Your task to perform on an android device: turn on data saver in the chrome app Image 0: 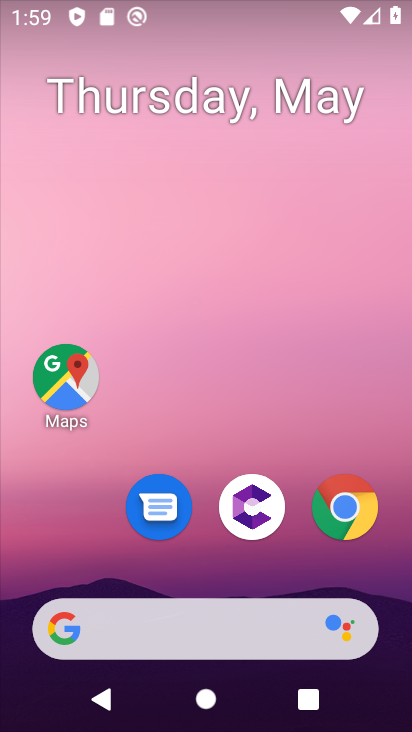
Step 0: press home button
Your task to perform on an android device: turn on data saver in the chrome app Image 1: 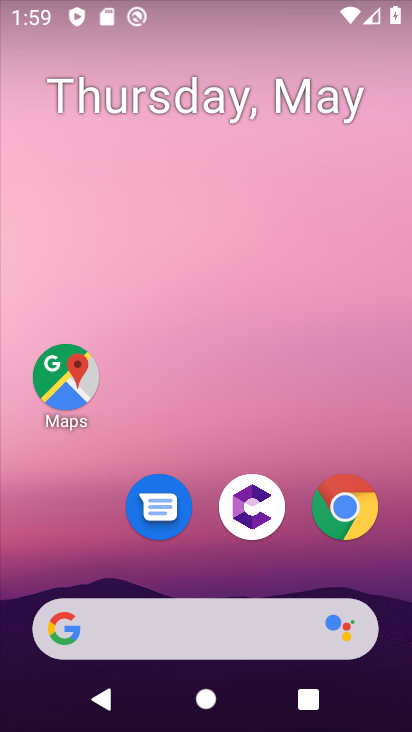
Step 1: click (357, 511)
Your task to perform on an android device: turn on data saver in the chrome app Image 2: 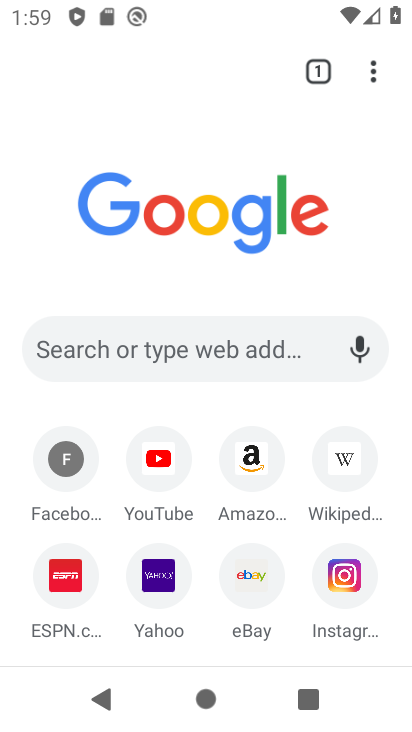
Step 2: drag from (377, 70) to (186, 506)
Your task to perform on an android device: turn on data saver in the chrome app Image 3: 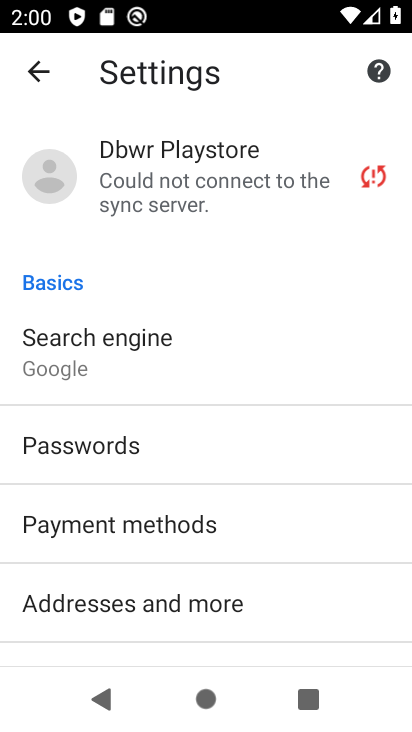
Step 3: drag from (280, 608) to (266, 210)
Your task to perform on an android device: turn on data saver in the chrome app Image 4: 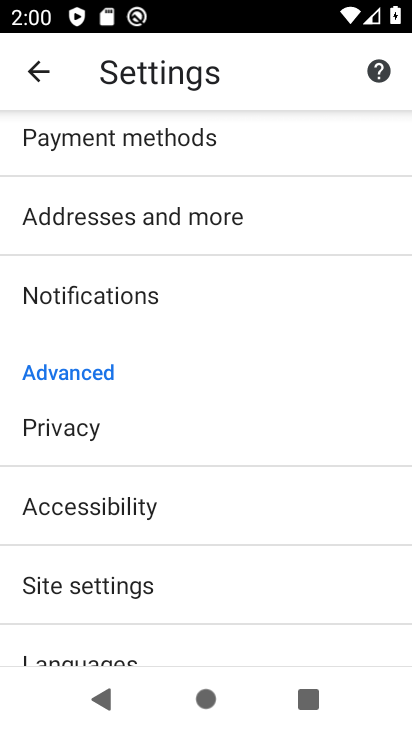
Step 4: drag from (244, 656) to (239, 310)
Your task to perform on an android device: turn on data saver in the chrome app Image 5: 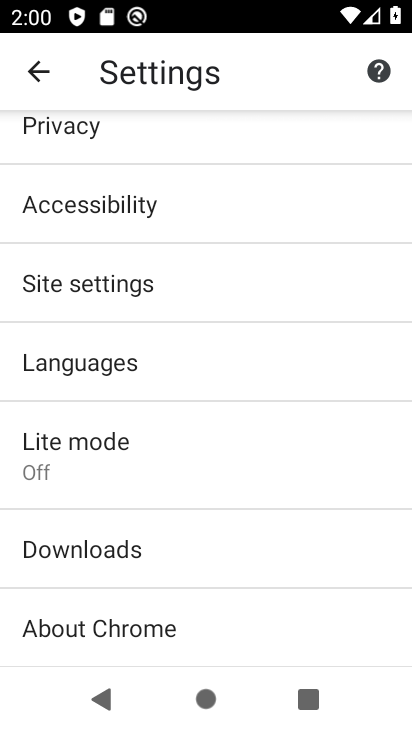
Step 5: click (67, 446)
Your task to perform on an android device: turn on data saver in the chrome app Image 6: 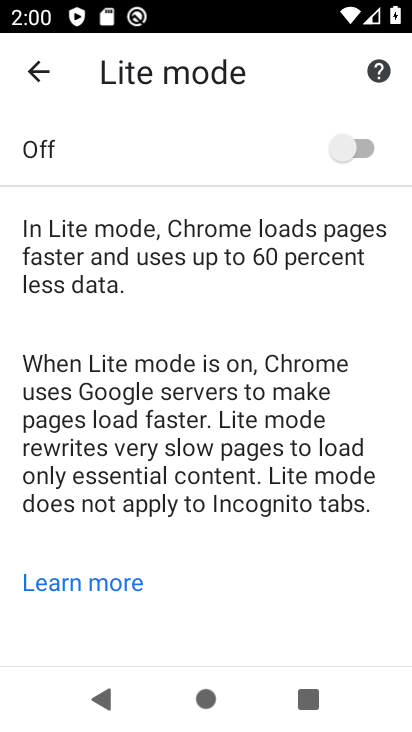
Step 6: click (351, 143)
Your task to perform on an android device: turn on data saver in the chrome app Image 7: 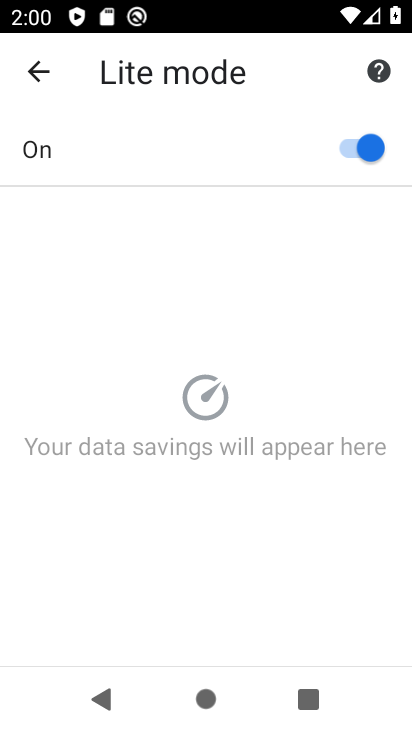
Step 7: task complete